Your task to perform on an android device: toggle improve location accuracy Image 0: 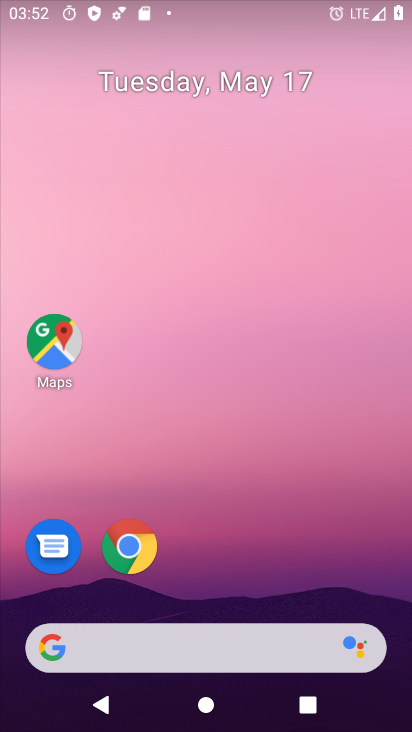
Step 0: press home button
Your task to perform on an android device: toggle improve location accuracy Image 1: 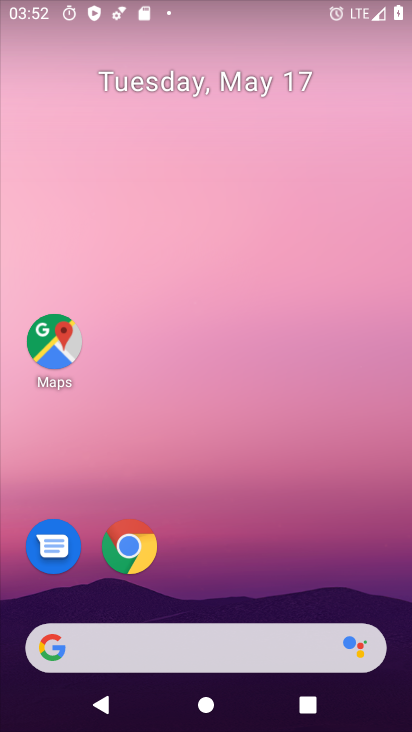
Step 1: drag from (268, 531) to (265, 81)
Your task to perform on an android device: toggle improve location accuracy Image 2: 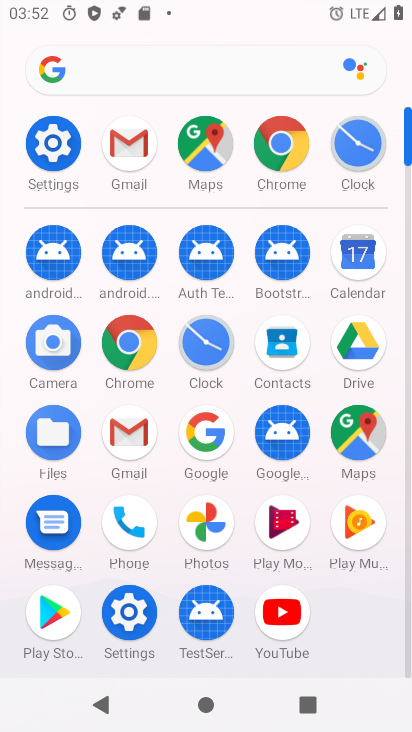
Step 2: click (121, 637)
Your task to perform on an android device: toggle improve location accuracy Image 3: 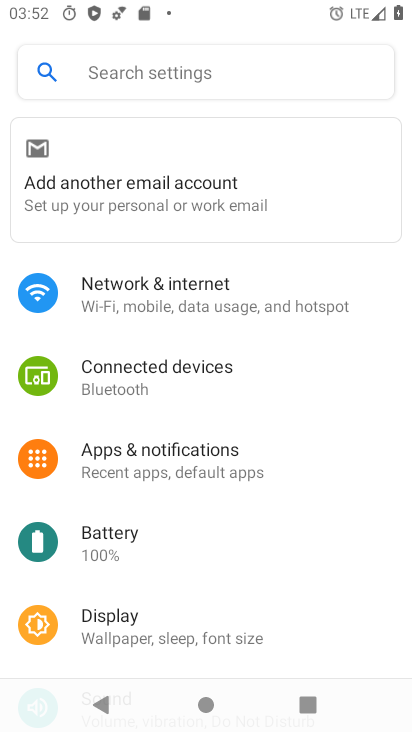
Step 3: drag from (190, 576) to (245, 213)
Your task to perform on an android device: toggle improve location accuracy Image 4: 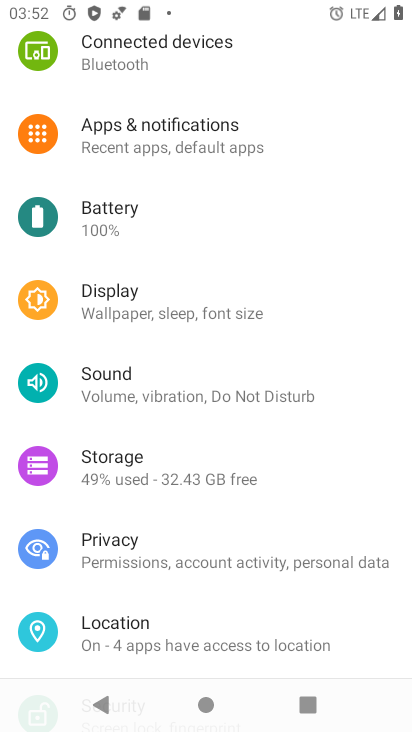
Step 4: click (160, 616)
Your task to perform on an android device: toggle improve location accuracy Image 5: 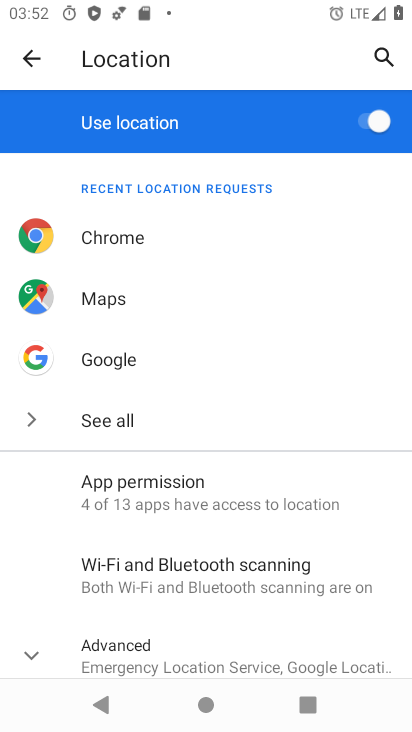
Step 5: drag from (188, 545) to (203, 321)
Your task to perform on an android device: toggle improve location accuracy Image 6: 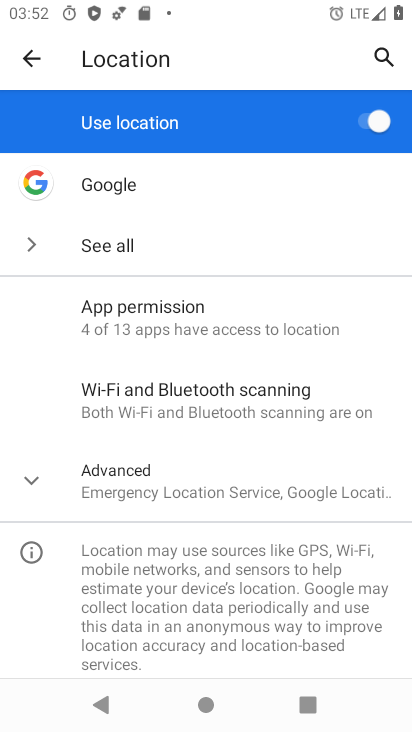
Step 6: click (143, 480)
Your task to perform on an android device: toggle improve location accuracy Image 7: 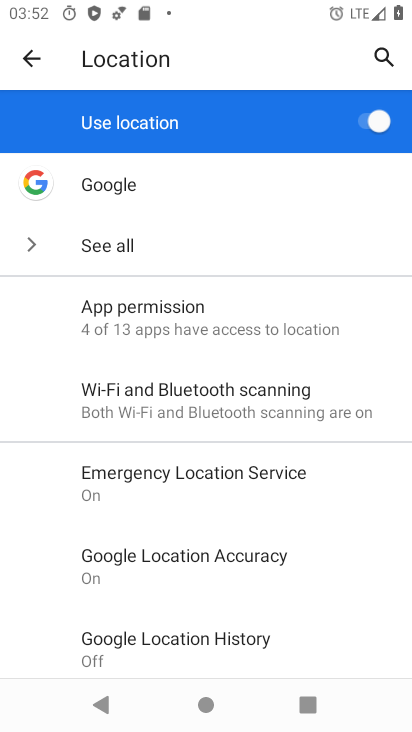
Step 7: click (179, 558)
Your task to perform on an android device: toggle improve location accuracy Image 8: 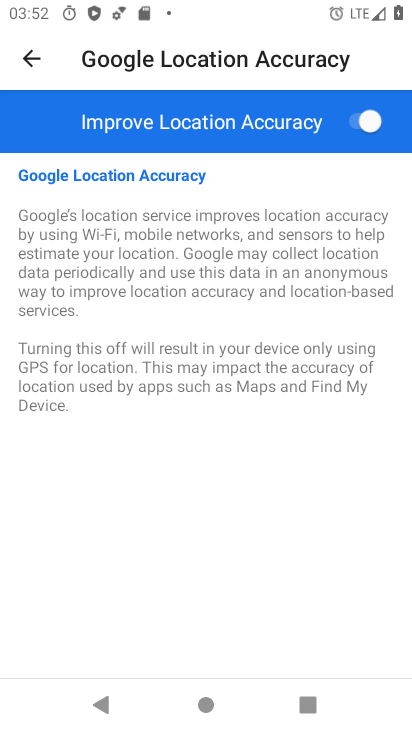
Step 8: click (357, 113)
Your task to perform on an android device: toggle improve location accuracy Image 9: 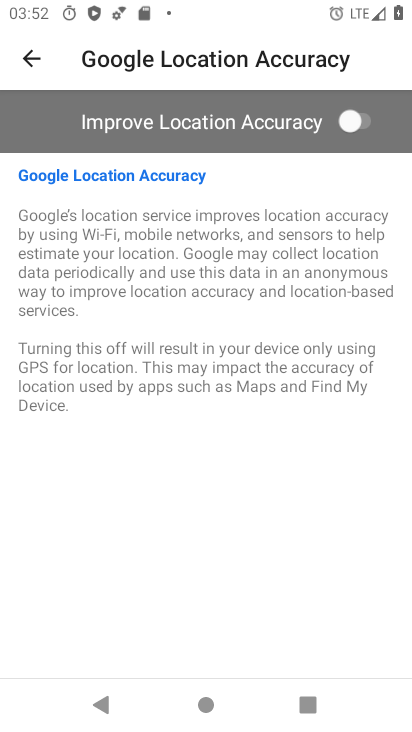
Step 9: task complete